Your task to perform on an android device: show emergency info Image 0: 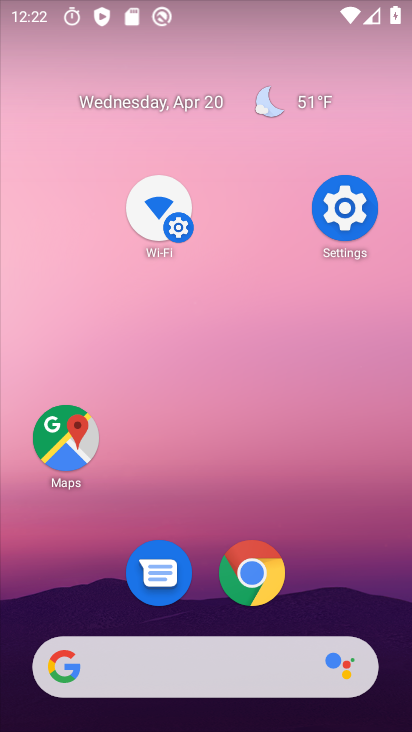
Step 0: drag from (330, 570) to (364, 165)
Your task to perform on an android device: show emergency info Image 1: 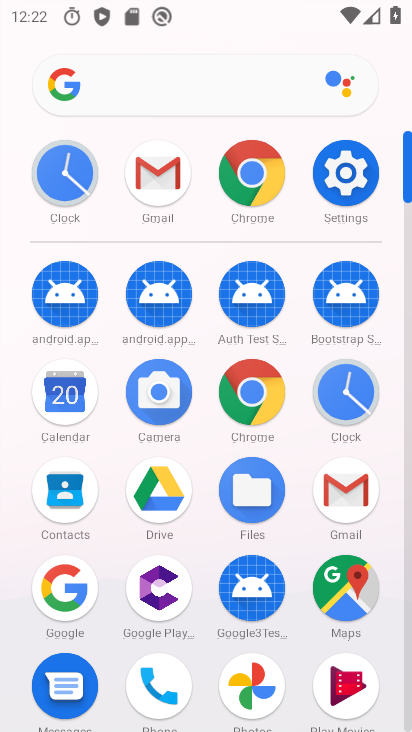
Step 1: click (358, 188)
Your task to perform on an android device: show emergency info Image 2: 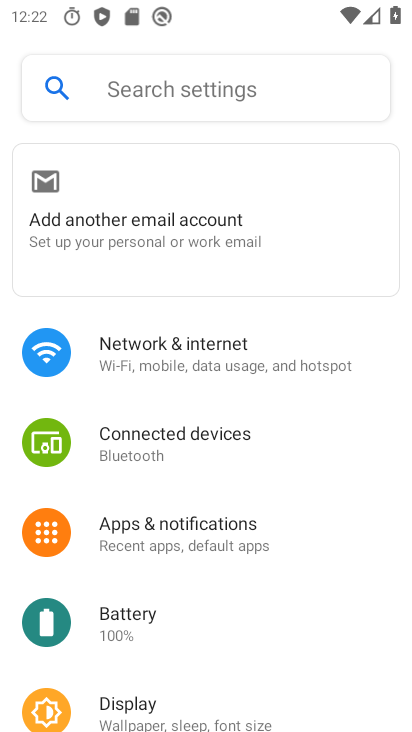
Step 2: click (232, 83)
Your task to perform on an android device: show emergency info Image 3: 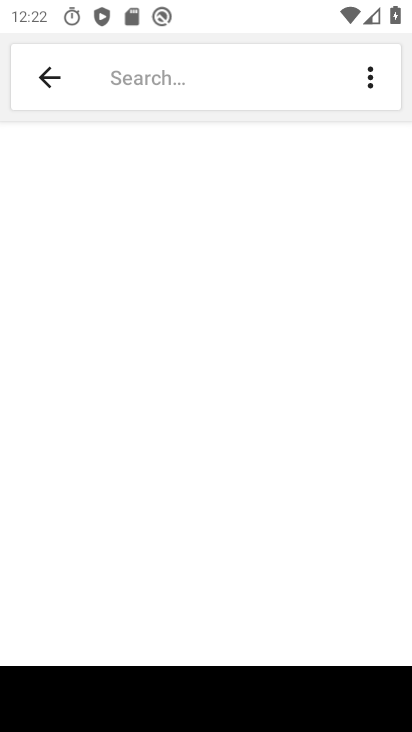
Step 3: type "emergency"
Your task to perform on an android device: show emergency info Image 4: 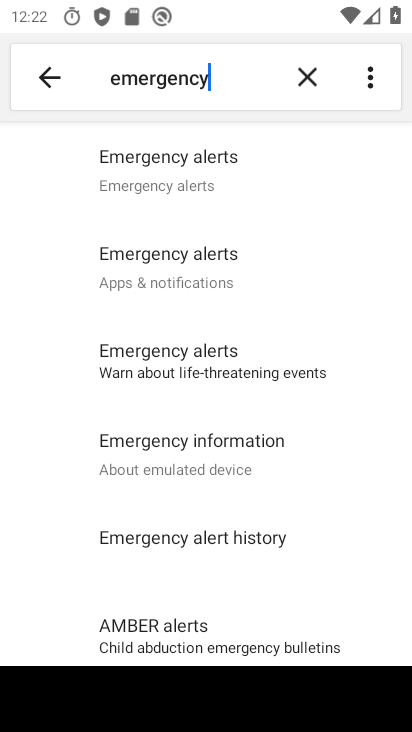
Step 4: type " info"
Your task to perform on an android device: show emergency info Image 5: 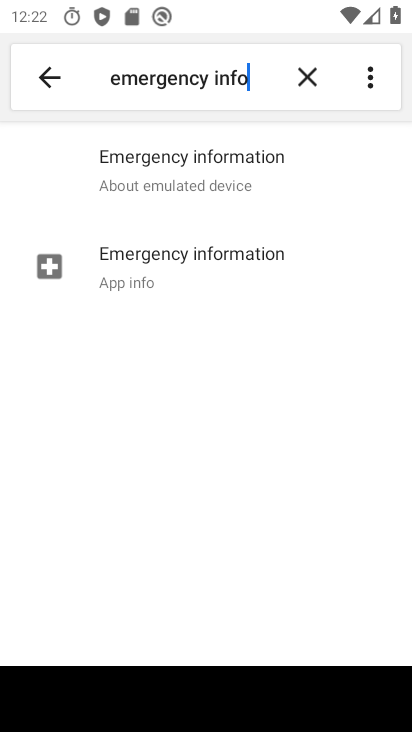
Step 5: click (219, 276)
Your task to perform on an android device: show emergency info Image 6: 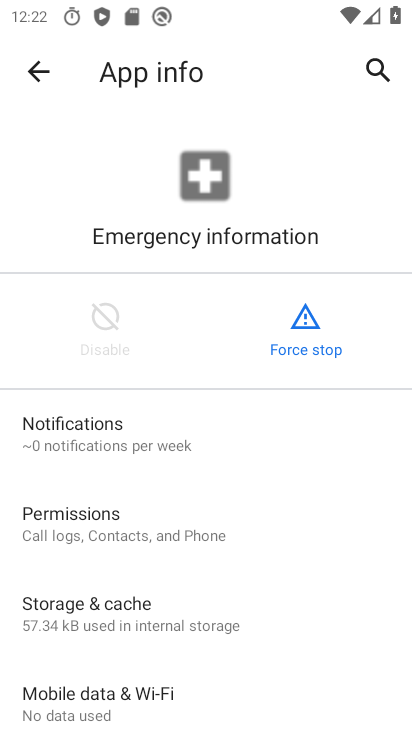
Step 6: task complete